Your task to perform on an android device: open the mobile data screen to see how much data has been used Image 0: 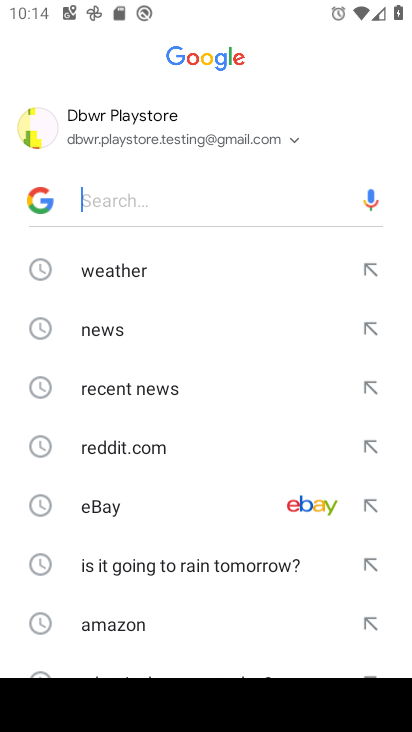
Step 0: press home button
Your task to perform on an android device: open the mobile data screen to see how much data has been used Image 1: 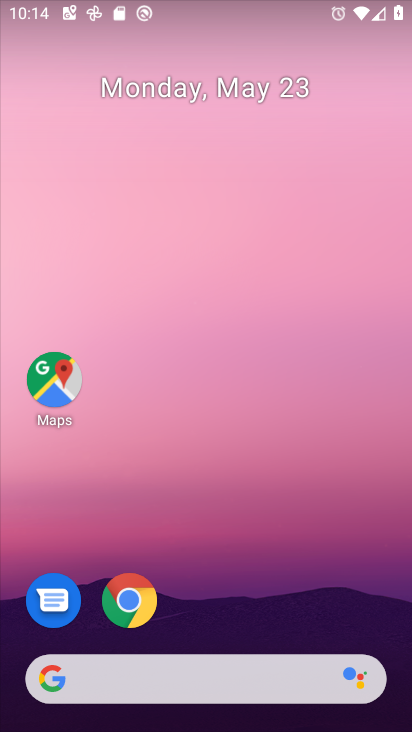
Step 1: drag from (234, 708) to (195, 124)
Your task to perform on an android device: open the mobile data screen to see how much data has been used Image 2: 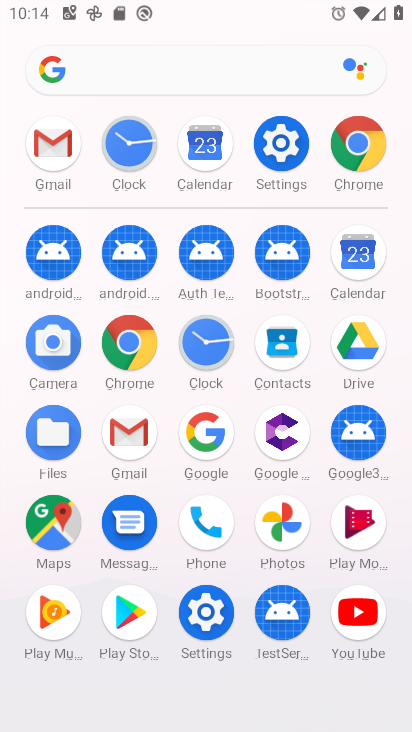
Step 2: click (271, 136)
Your task to perform on an android device: open the mobile data screen to see how much data has been used Image 3: 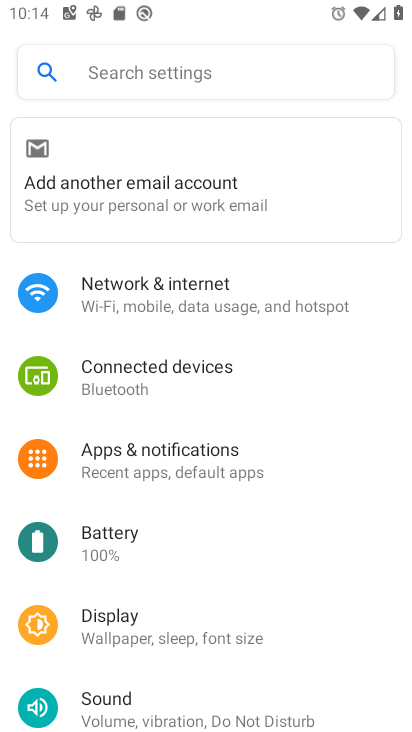
Step 3: click (157, 287)
Your task to perform on an android device: open the mobile data screen to see how much data has been used Image 4: 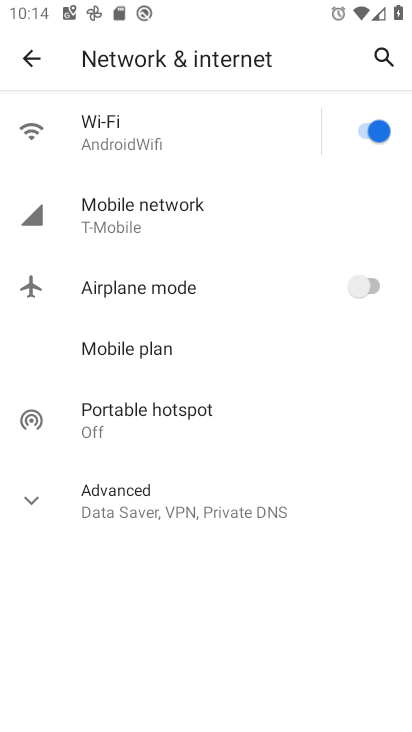
Step 4: click (113, 213)
Your task to perform on an android device: open the mobile data screen to see how much data has been used Image 5: 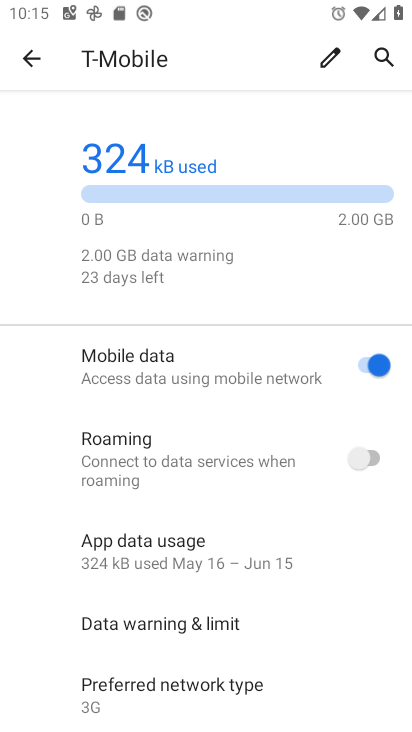
Step 5: click (169, 542)
Your task to perform on an android device: open the mobile data screen to see how much data has been used Image 6: 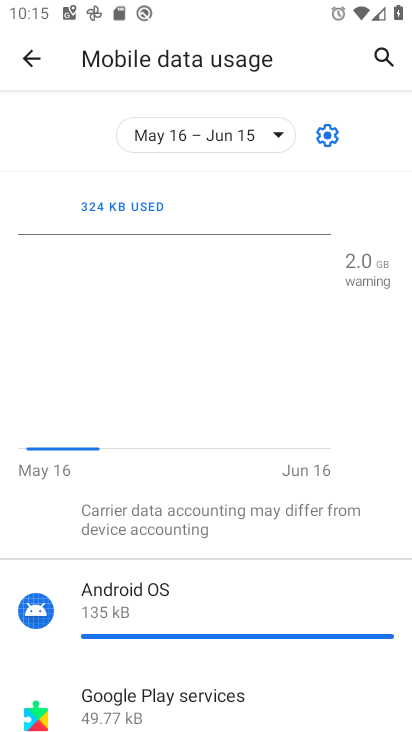
Step 6: task complete